Your task to perform on an android device: Open wifi settings Image 0: 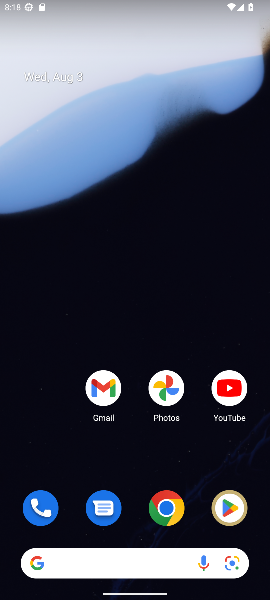
Step 0: drag from (145, 549) to (111, 83)
Your task to perform on an android device: Open wifi settings Image 1: 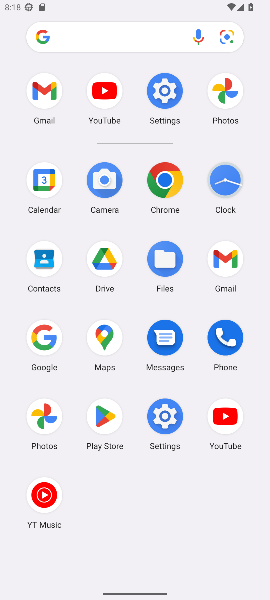
Step 1: click (167, 413)
Your task to perform on an android device: Open wifi settings Image 2: 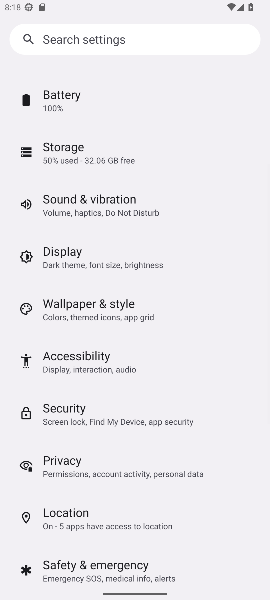
Step 2: drag from (99, 106) to (107, 591)
Your task to perform on an android device: Open wifi settings Image 3: 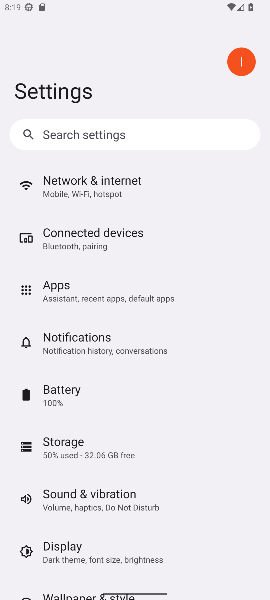
Step 3: click (90, 191)
Your task to perform on an android device: Open wifi settings Image 4: 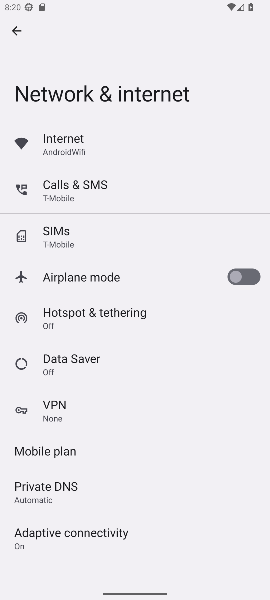
Step 4: click (43, 137)
Your task to perform on an android device: Open wifi settings Image 5: 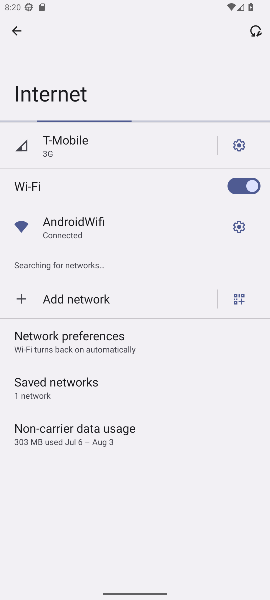
Step 5: task complete